Your task to perform on an android device: Search for the best 100% cotton t-shirts Image 0: 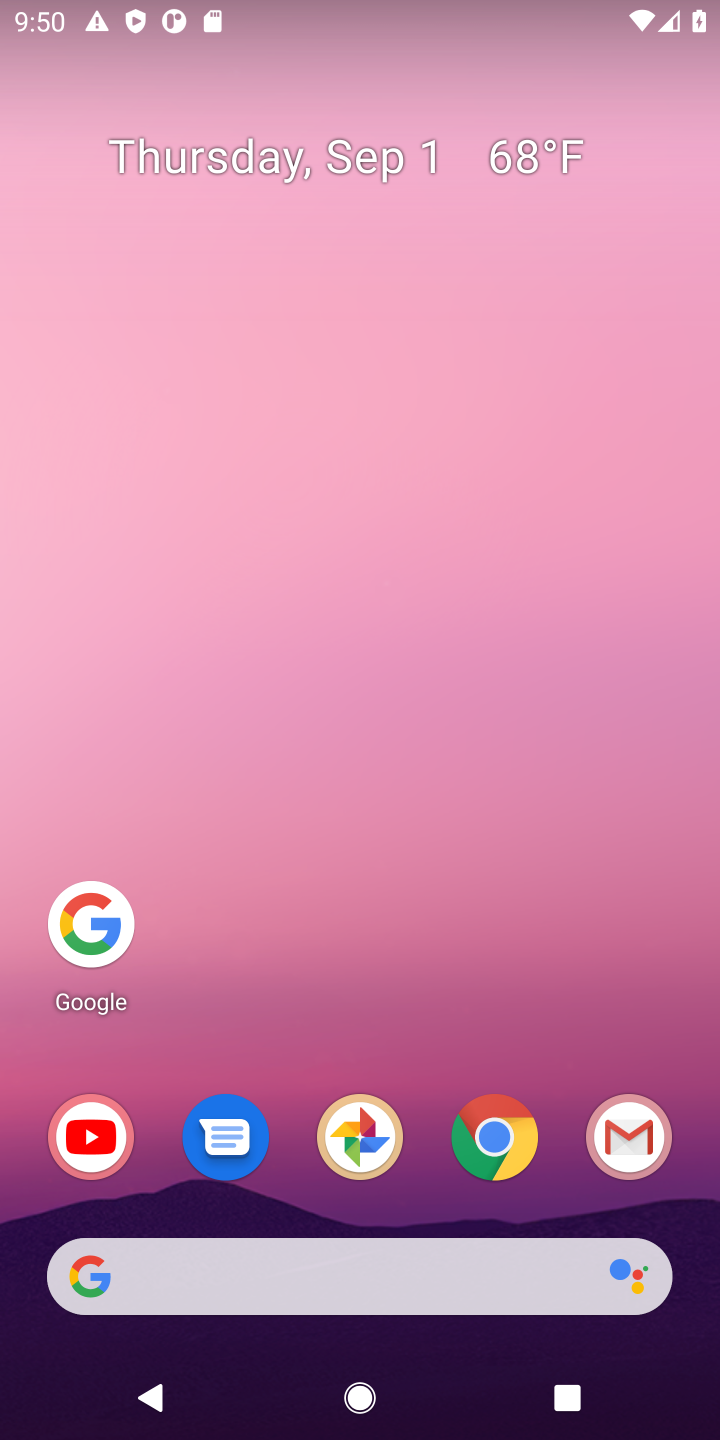
Step 0: click (97, 924)
Your task to perform on an android device: Search for the best 100% cotton t-shirts Image 1: 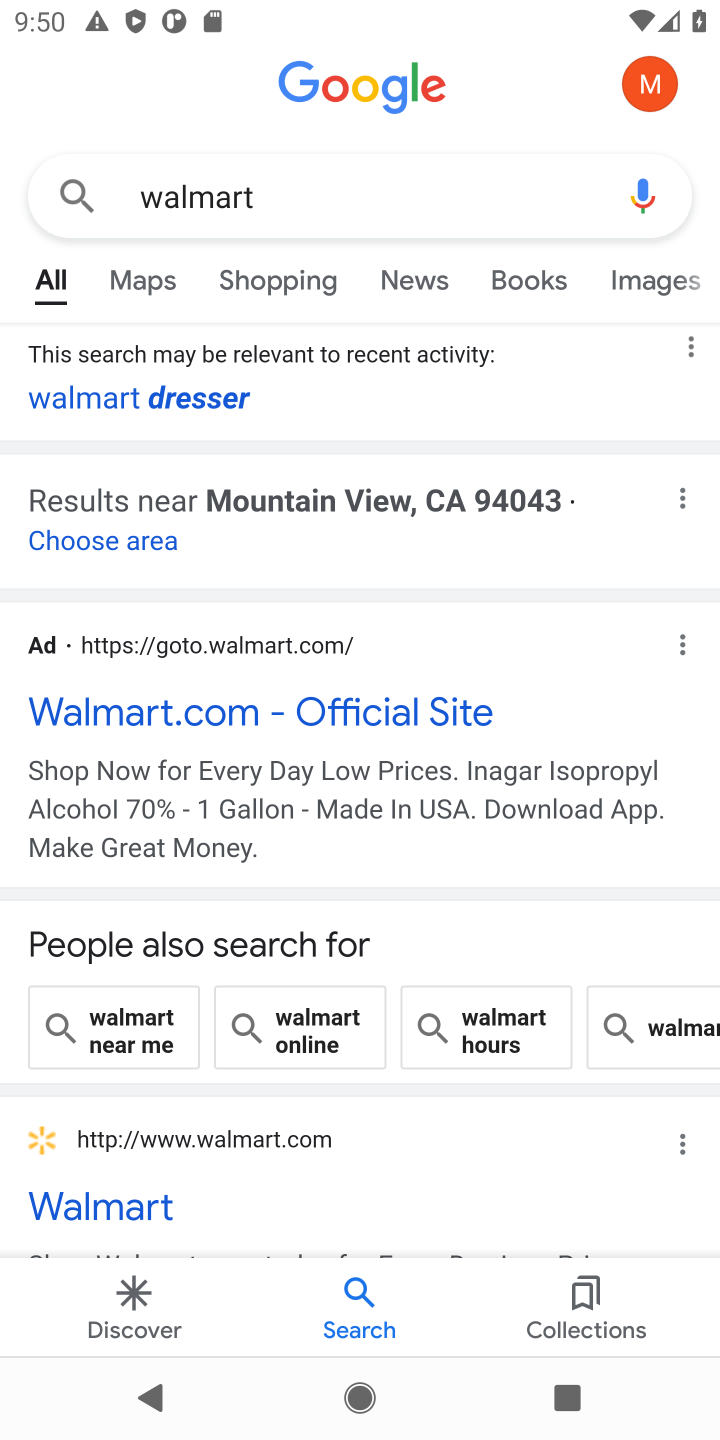
Step 1: click (287, 178)
Your task to perform on an android device: Search for the best 100% cotton t-shirts Image 2: 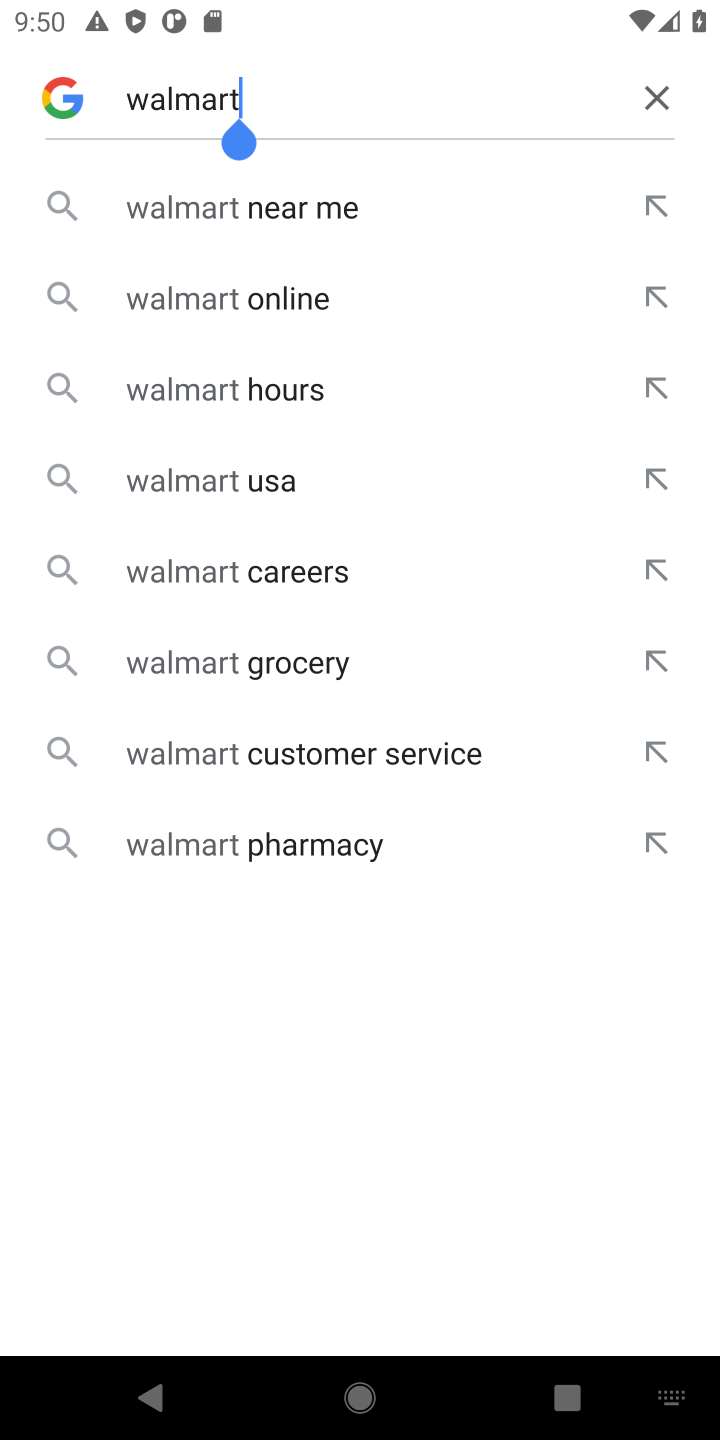
Step 2: click (654, 98)
Your task to perform on an android device: Search for the best 100% cotton t-shirts Image 3: 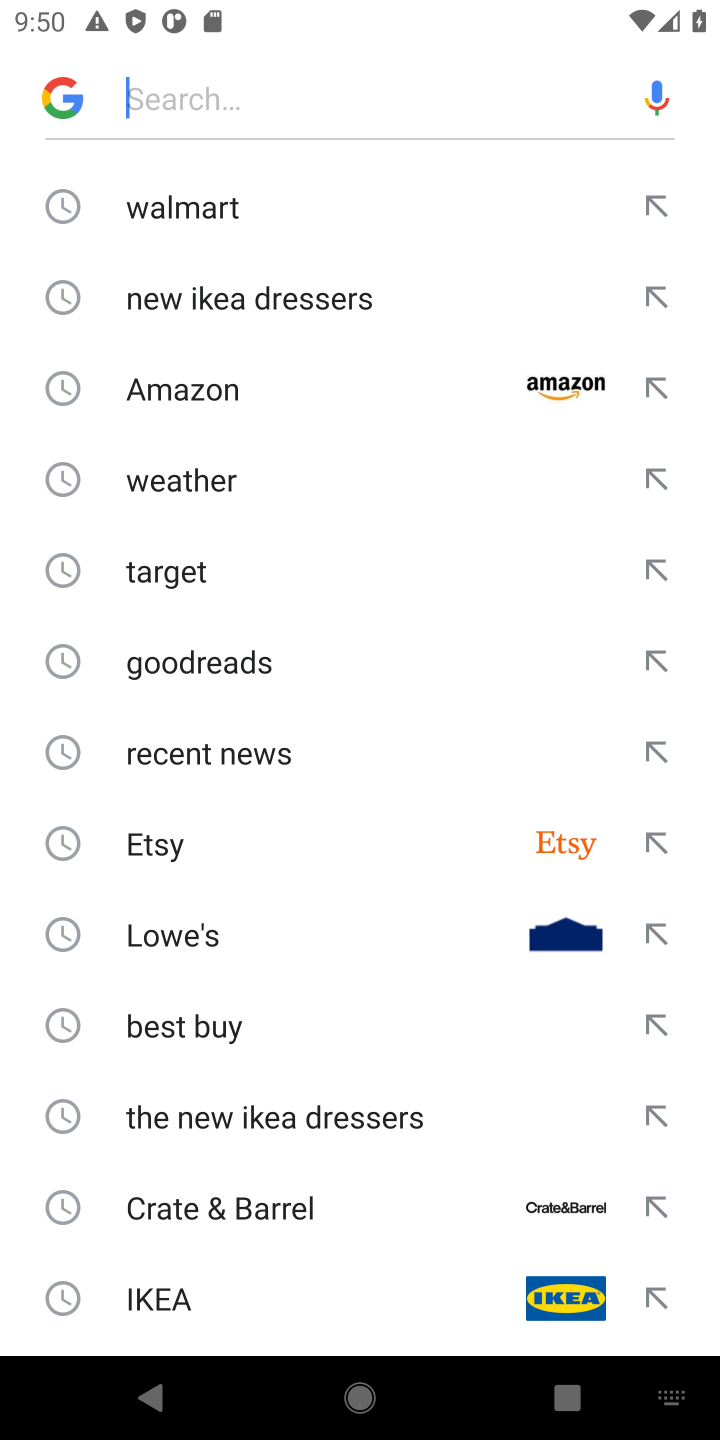
Step 3: click (320, 98)
Your task to perform on an android device: Search for the best 100% cotton t-shirts Image 4: 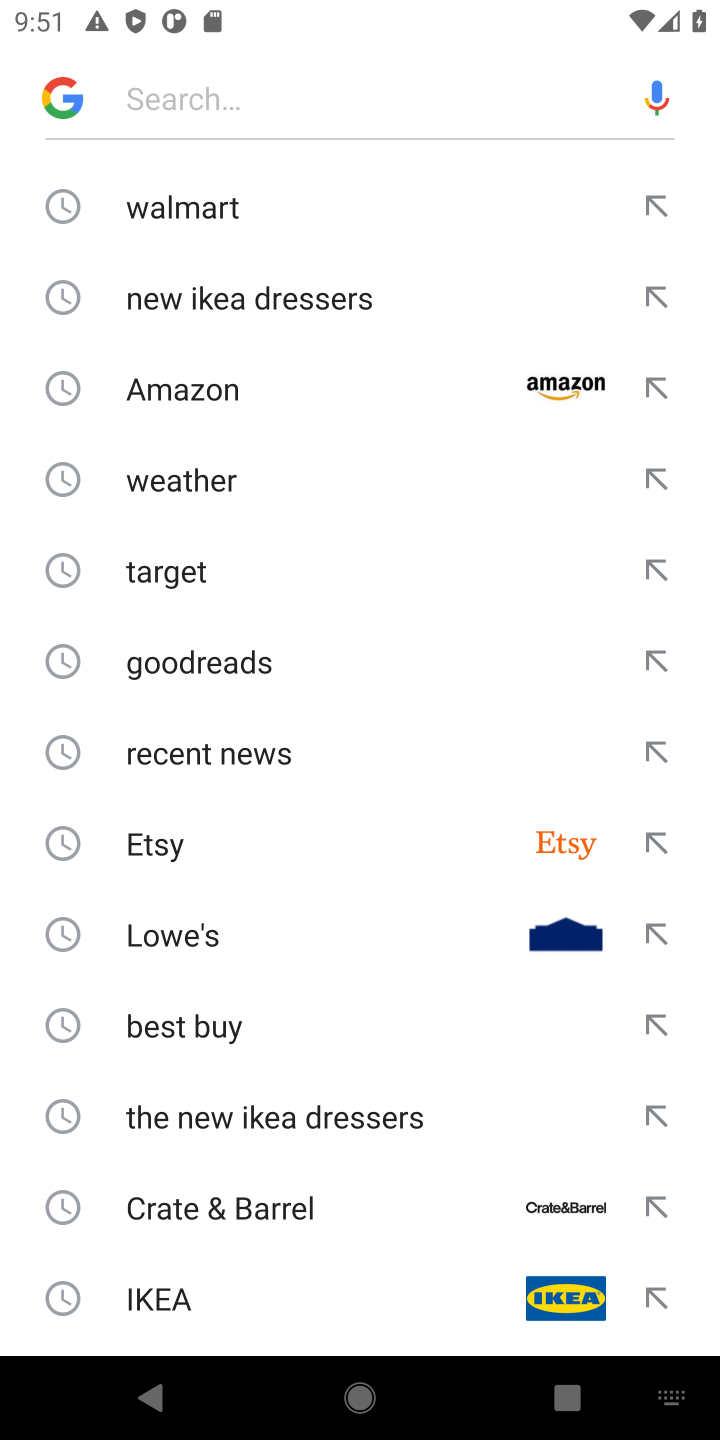
Step 4: type "the best 100% cotton t-shirts"
Your task to perform on an android device: Search for the best 100% cotton t-shirts Image 5: 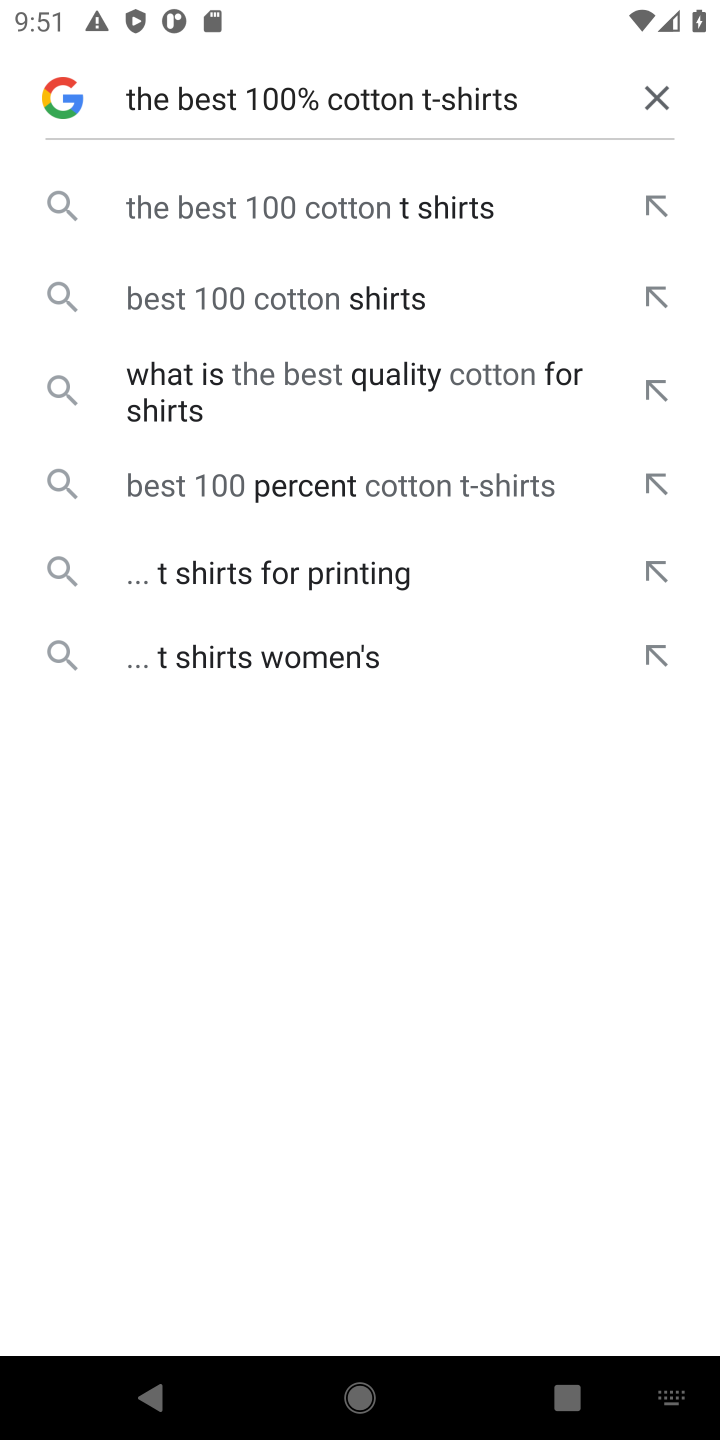
Step 5: click (294, 204)
Your task to perform on an android device: Search for the best 100% cotton t-shirts Image 6: 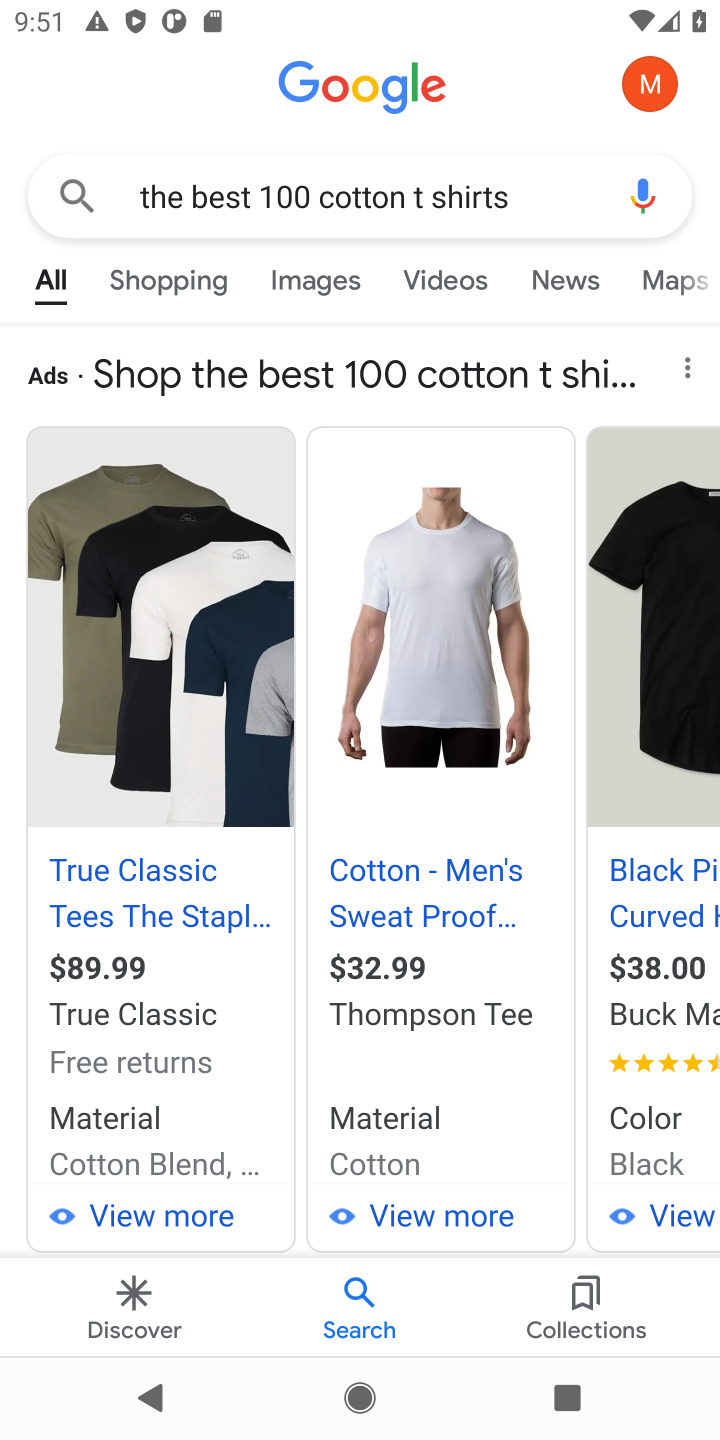
Step 6: task complete